Your task to perform on an android device: Check the weather Image 0: 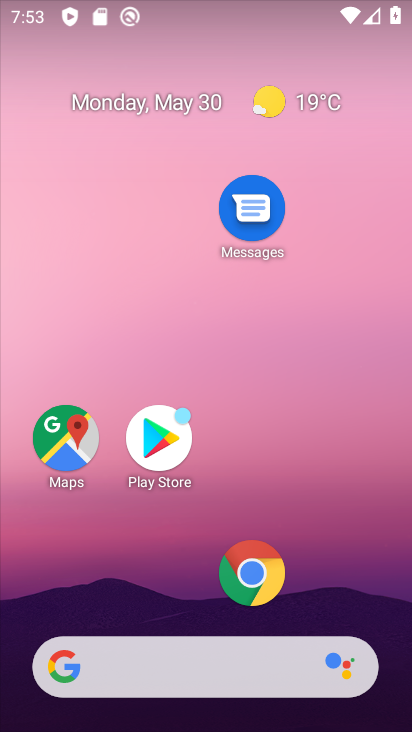
Step 0: click (312, 108)
Your task to perform on an android device: Check the weather Image 1: 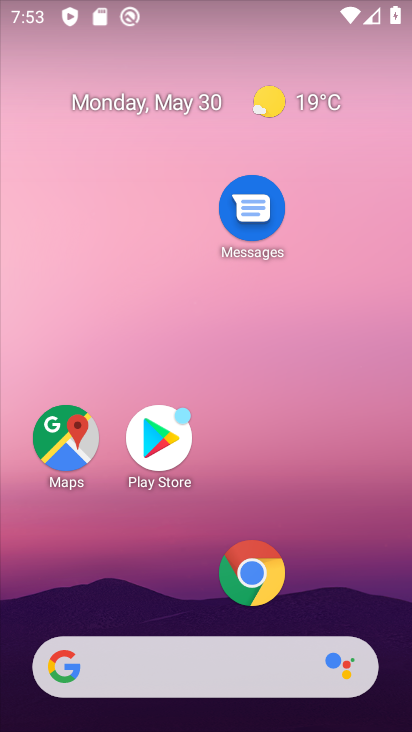
Step 1: click (291, 104)
Your task to perform on an android device: Check the weather Image 2: 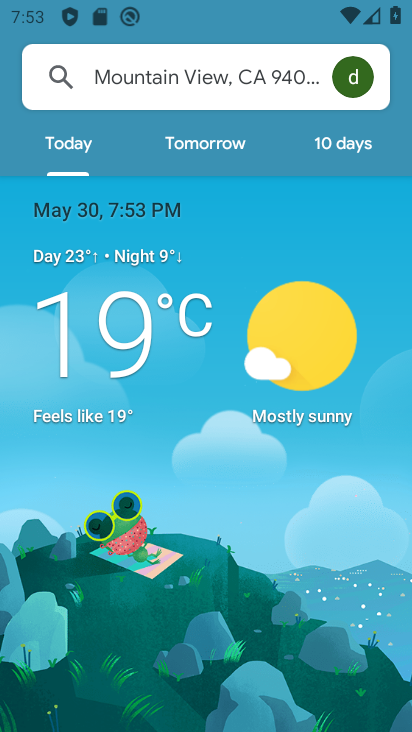
Step 2: task complete